Your task to perform on an android device: Go to battery settings Image 0: 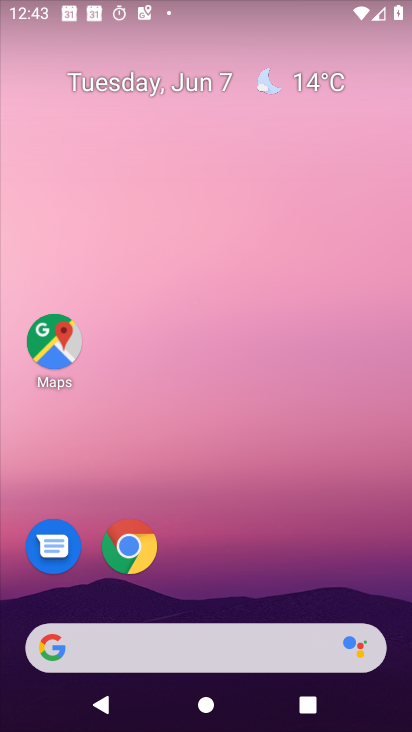
Step 0: drag from (251, 563) to (312, 200)
Your task to perform on an android device: Go to battery settings Image 1: 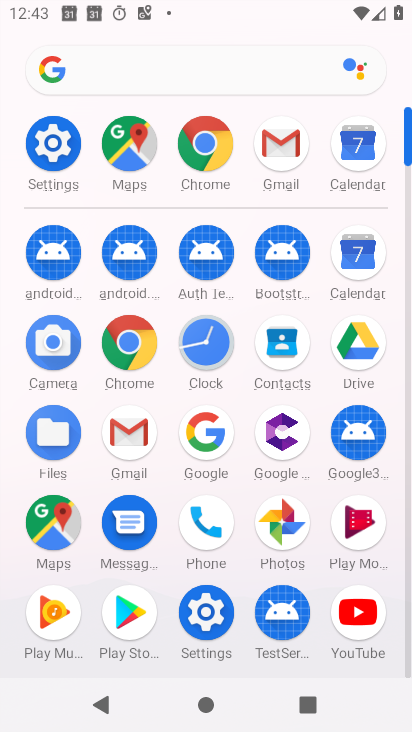
Step 1: click (47, 136)
Your task to perform on an android device: Go to battery settings Image 2: 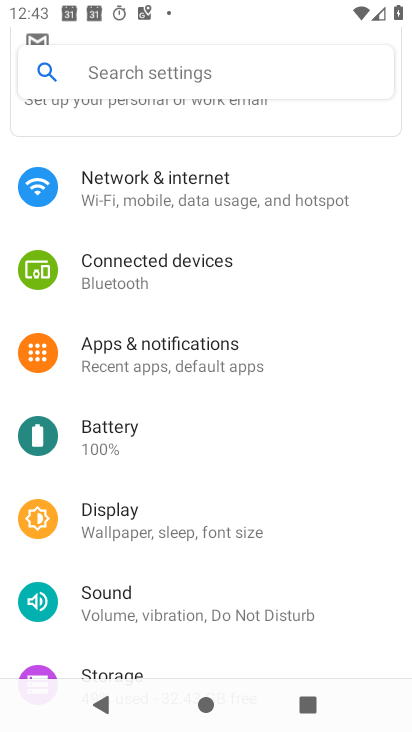
Step 2: click (120, 439)
Your task to perform on an android device: Go to battery settings Image 3: 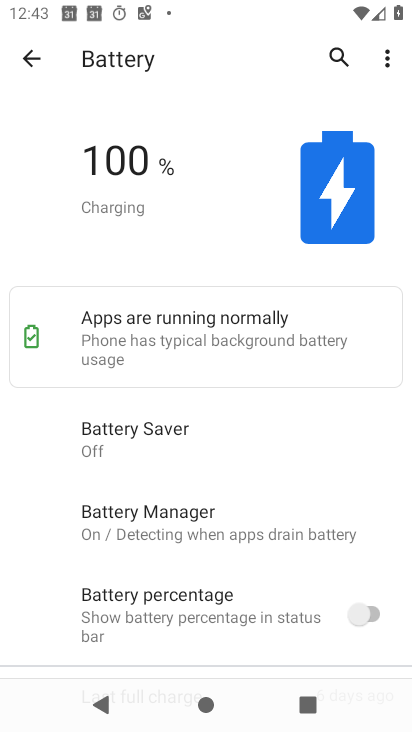
Step 3: task complete